Your task to perform on an android device: all mails in gmail Image 0: 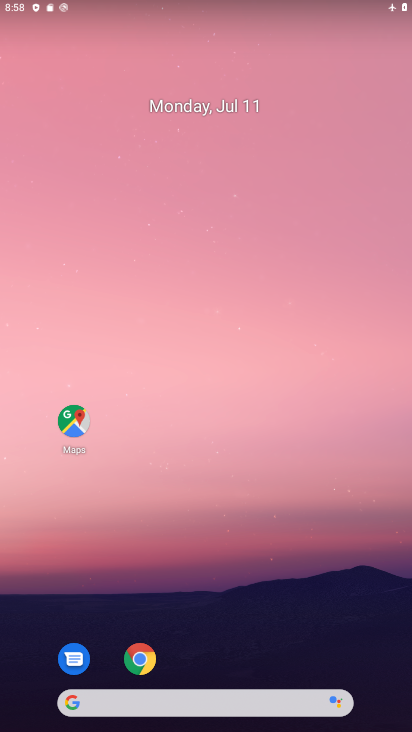
Step 0: drag from (199, 627) to (199, 114)
Your task to perform on an android device: all mails in gmail Image 1: 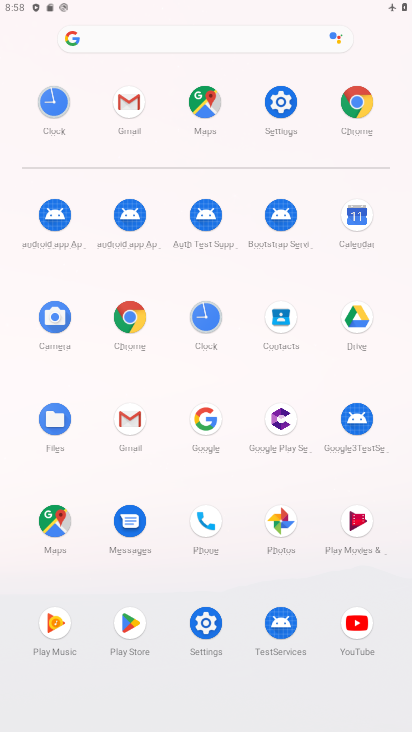
Step 1: click (126, 111)
Your task to perform on an android device: all mails in gmail Image 2: 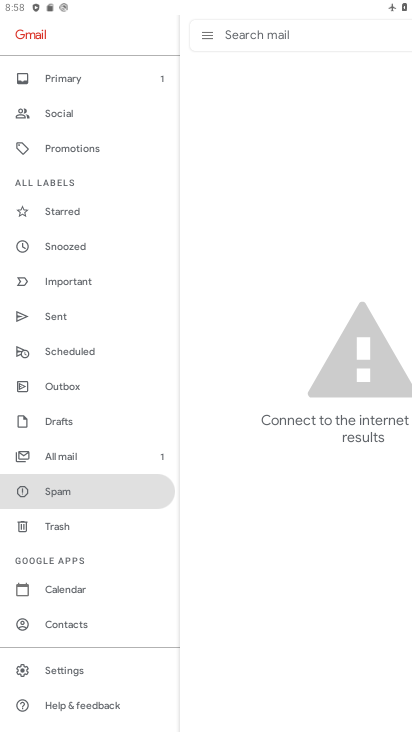
Step 2: click (59, 443)
Your task to perform on an android device: all mails in gmail Image 3: 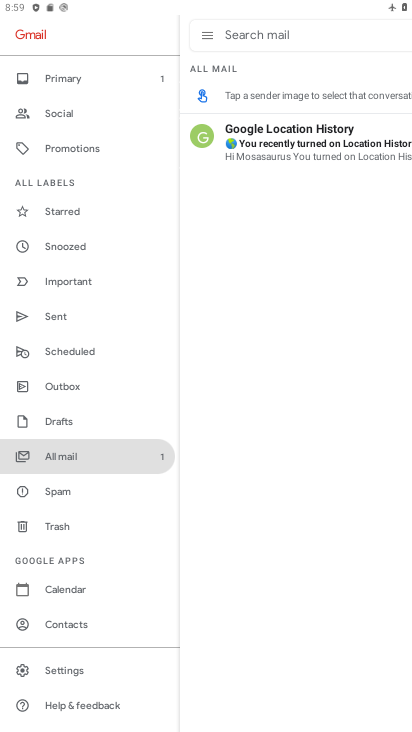
Step 3: task complete